Your task to perform on an android device: turn on javascript in the chrome app Image 0: 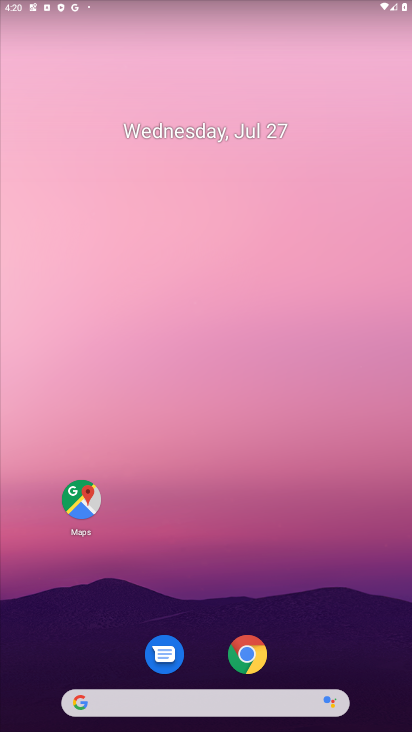
Step 0: click (255, 649)
Your task to perform on an android device: turn on javascript in the chrome app Image 1: 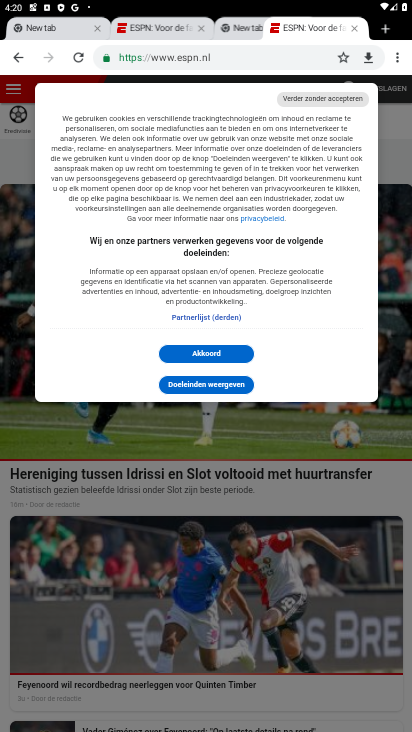
Step 1: click (401, 58)
Your task to perform on an android device: turn on javascript in the chrome app Image 2: 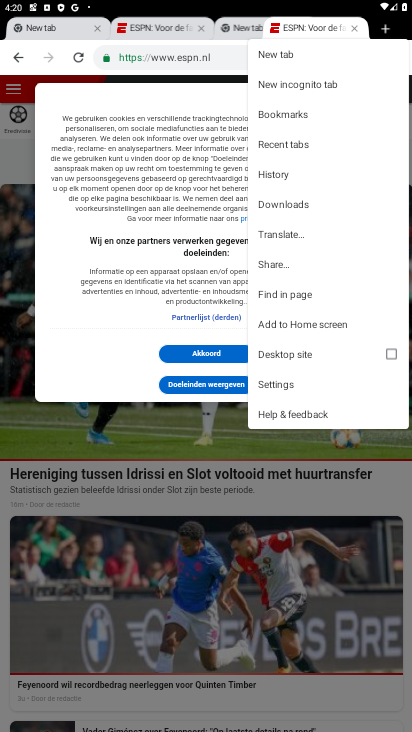
Step 2: click (294, 380)
Your task to perform on an android device: turn on javascript in the chrome app Image 3: 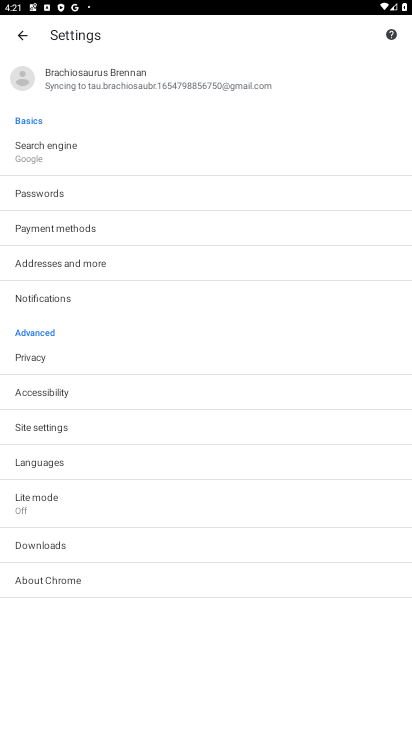
Step 3: click (43, 425)
Your task to perform on an android device: turn on javascript in the chrome app Image 4: 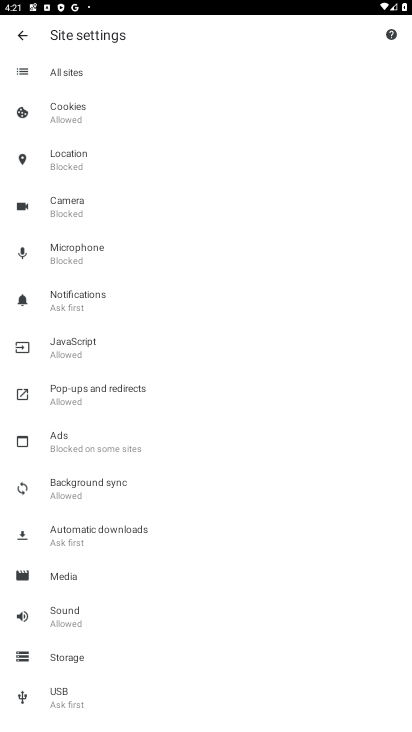
Step 4: click (91, 344)
Your task to perform on an android device: turn on javascript in the chrome app Image 5: 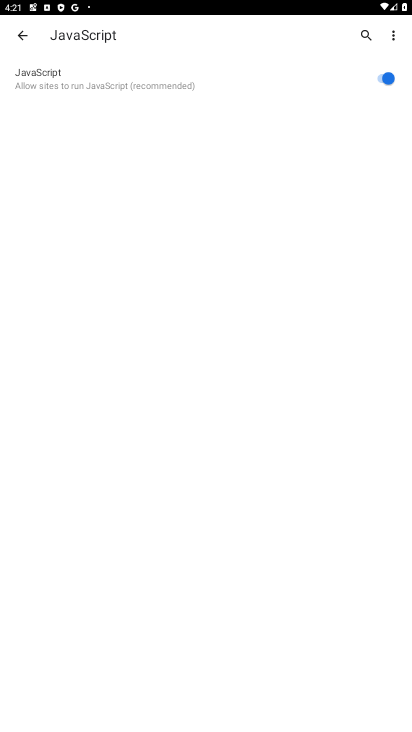
Step 5: task complete